Your task to perform on an android device: change timer sound Image 0: 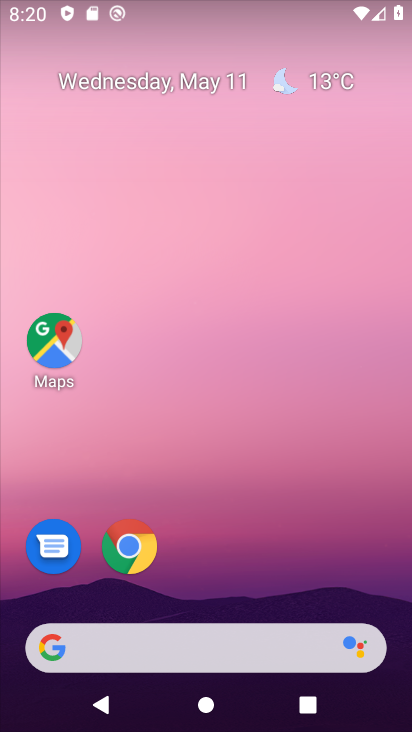
Step 0: drag from (200, 543) to (265, 89)
Your task to perform on an android device: change timer sound Image 1: 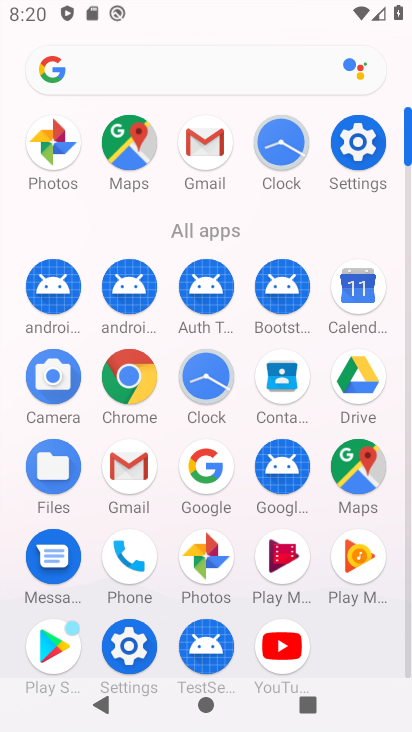
Step 1: click (197, 380)
Your task to perform on an android device: change timer sound Image 2: 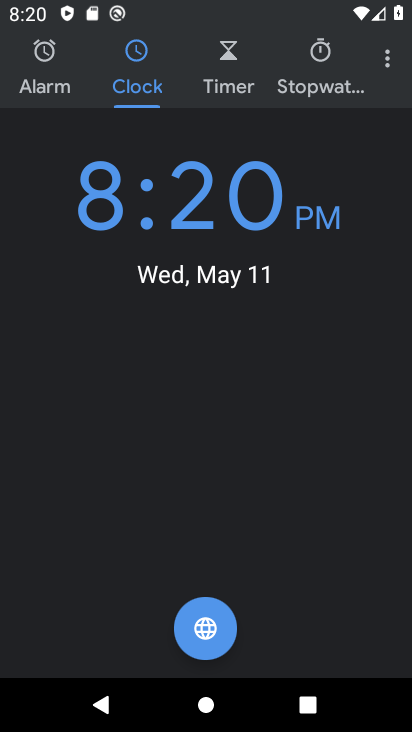
Step 2: click (385, 45)
Your task to perform on an android device: change timer sound Image 3: 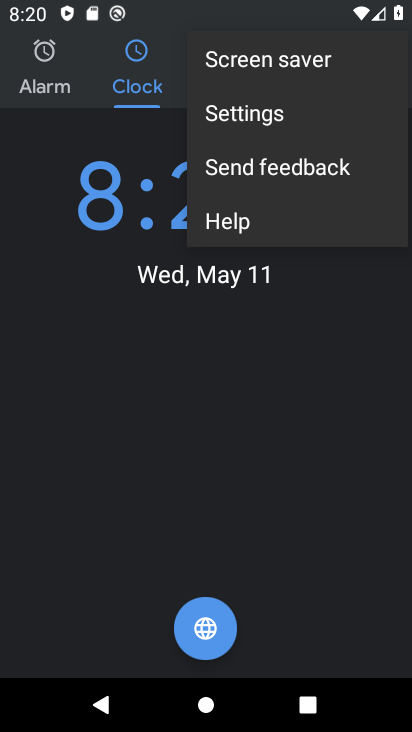
Step 3: click (254, 118)
Your task to perform on an android device: change timer sound Image 4: 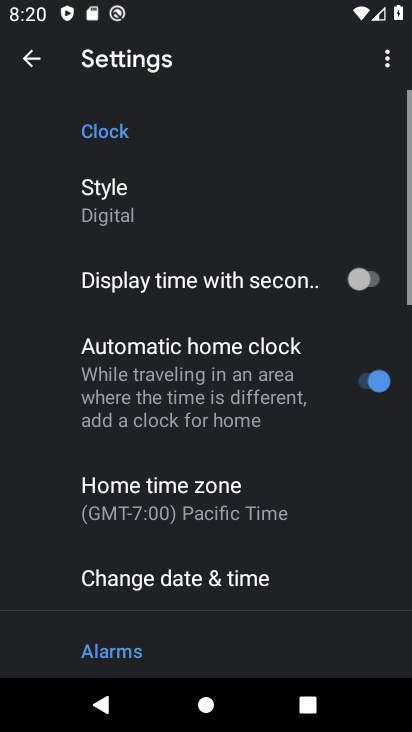
Step 4: drag from (197, 565) to (230, 166)
Your task to perform on an android device: change timer sound Image 5: 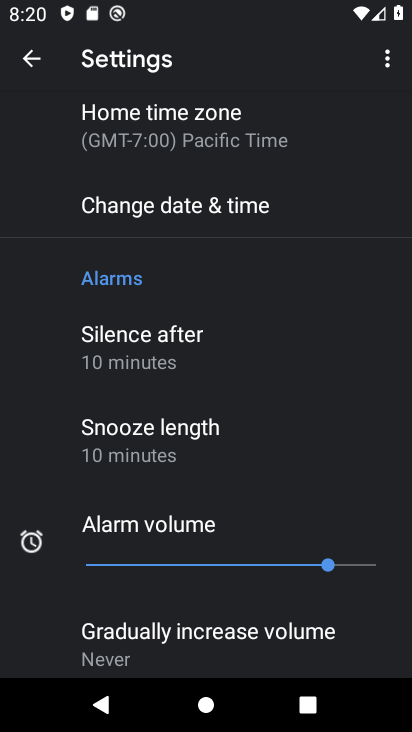
Step 5: drag from (207, 581) to (228, 226)
Your task to perform on an android device: change timer sound Image 6: 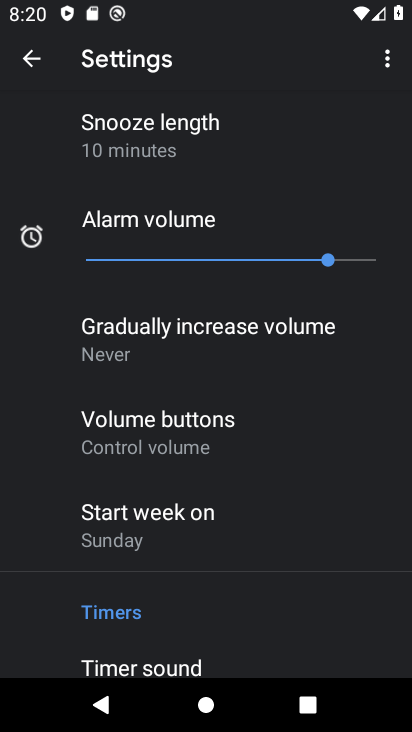
Step 6: drag from (202, 580) to (251, 312)
Your task to perform on an android device: change timer sound Image 7: 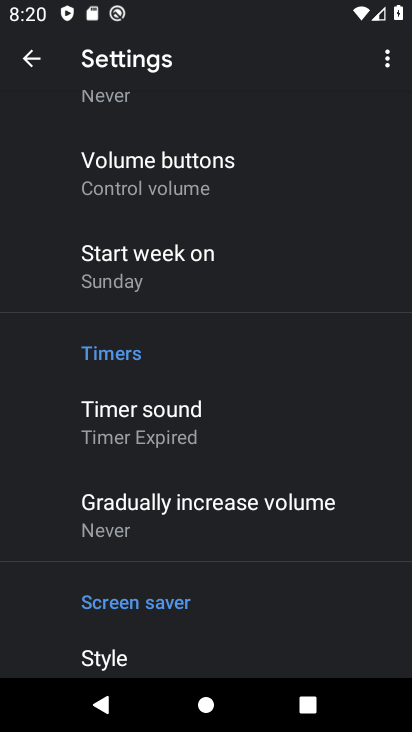
Step 7: click (115, 426)
Your task to perform on an android device: change timer sound Image 8: 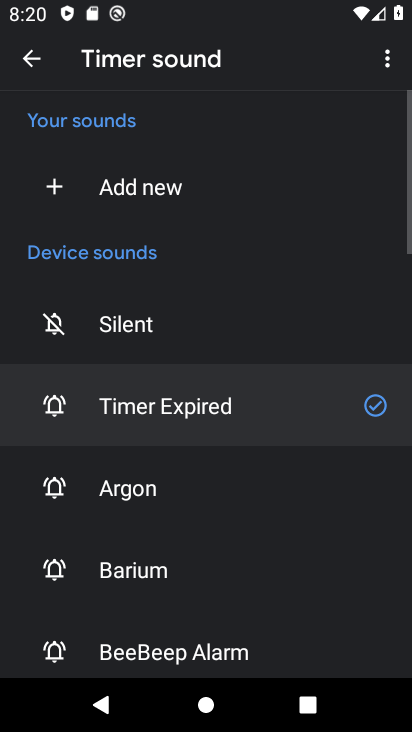
Step 8: click (148, 496)
Your task to perform on an android device: change timer sound Image 9: 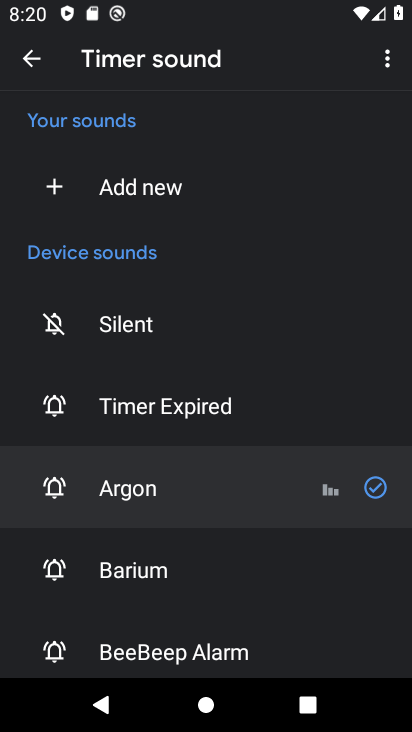
Step 9: task complete